Your task to perform on an android device: toggle notification dots Image 0: 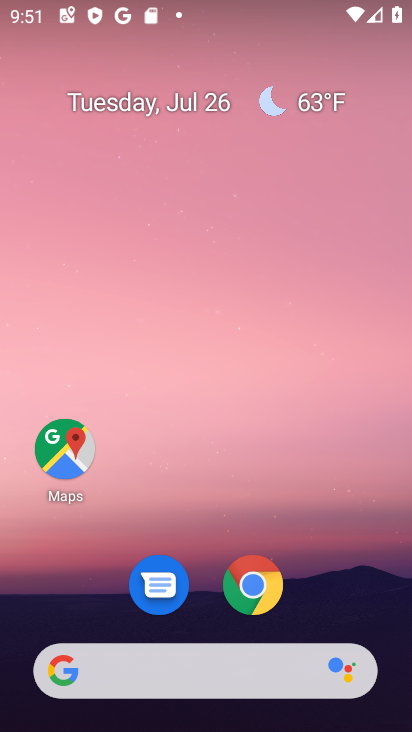
Step 0: drag from (331, 590) to (313, 27)
Your task to perform on an android device: toggle notification dots Image 1: 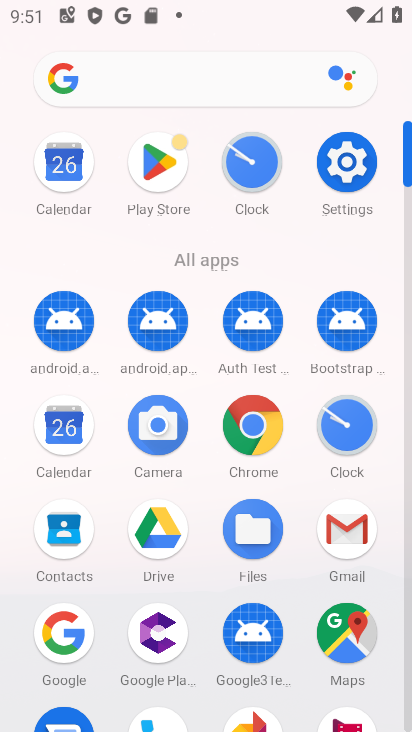
Step 1: click (342, 164)
Your task to perform on an android device: toggle notification dots Image 2: 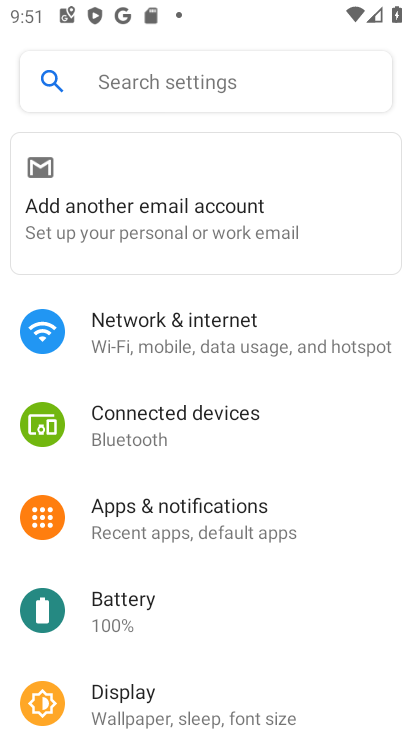
Step 2: click (186, 509)
Your task to perform on an android device: toggle notification dots Image 3: 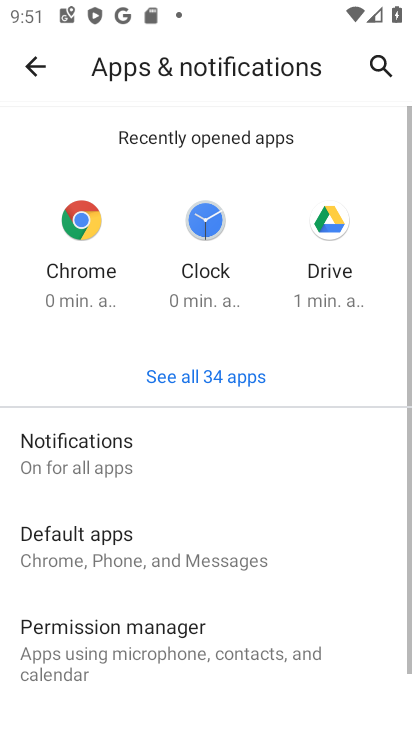
Step 3: click (125, 461)
Your task to perform on an android device: toggle notification dots Image 4: 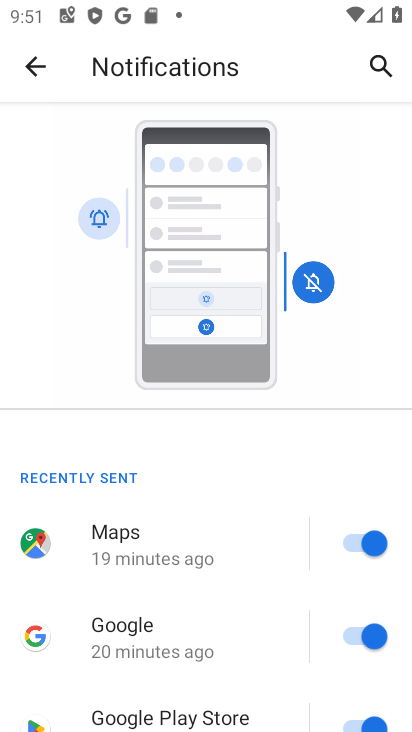
Step 4: drag from (209, 571) to (234, 153)
Your task to perform on an android device: toggle notification dots Image 5: 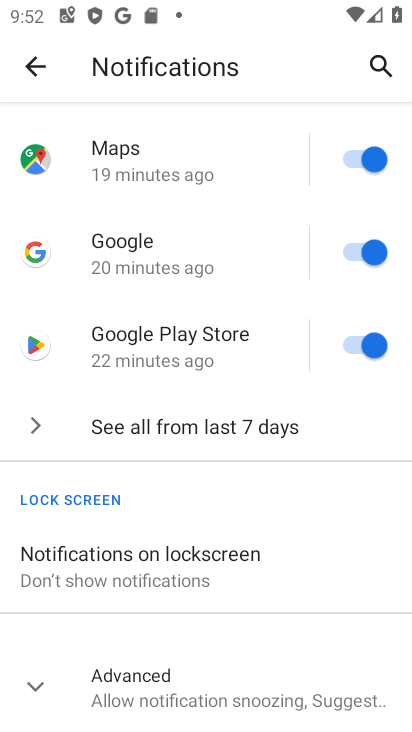
Step 5: drag from (173, 479) to (186, 228)
Your task to perform on an android device: toggle notification dots Image 6: 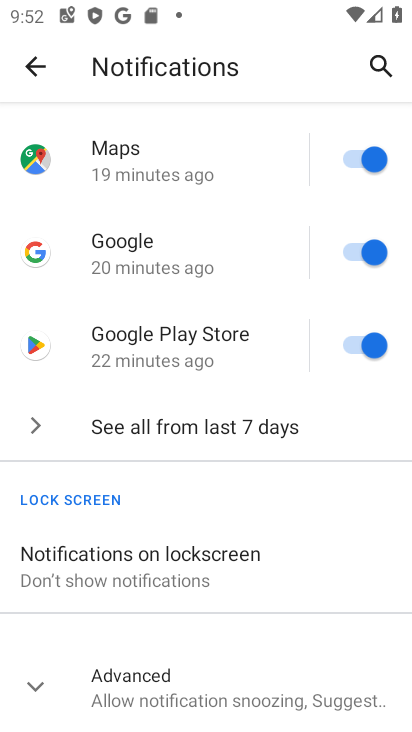
Step 6: click (32, 680)
Your task to perform on an android device: toggle notification dots Image 7: 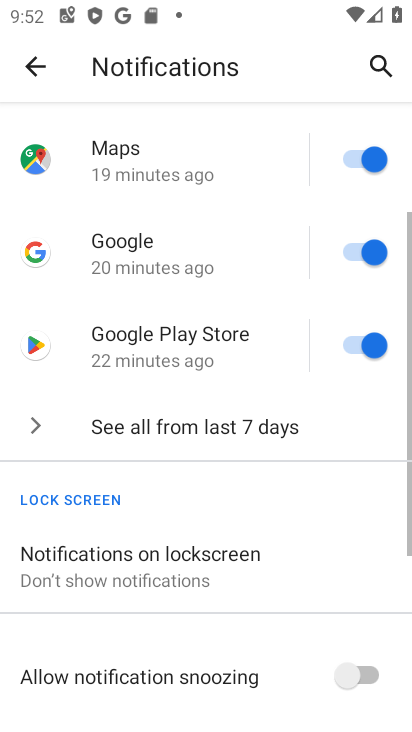
Step 7: drag from (190, 513) to (265, 71)
Your task to perform on an android device: toggle notification dots Image 8: 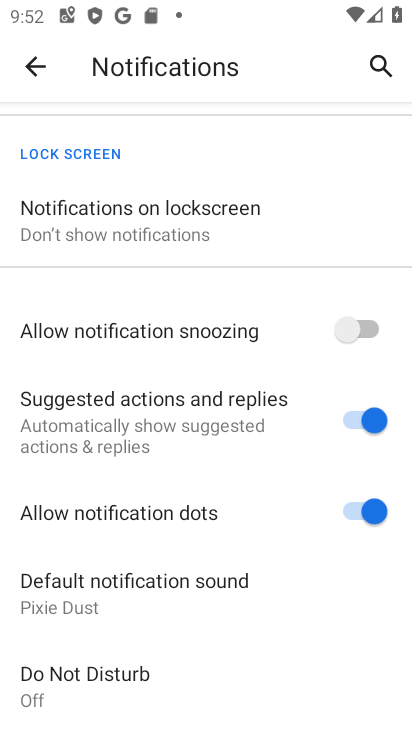
Step 8: click (379, 502)
Your task to perform on an android device: toggle notification dots Image 9: 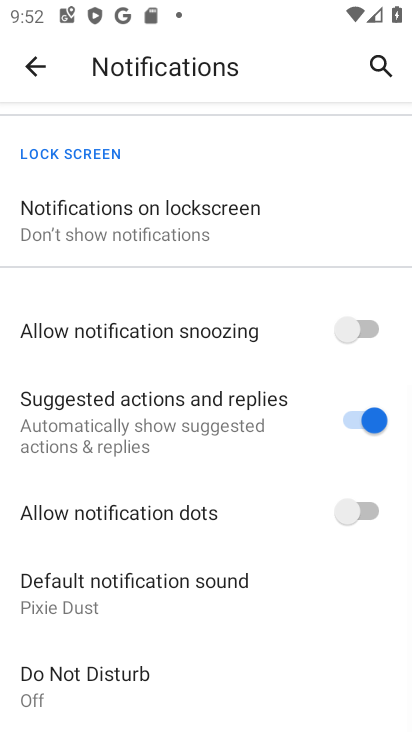
Step 9: task complete